Your task to perform on an android device: check out phone information Image 0: 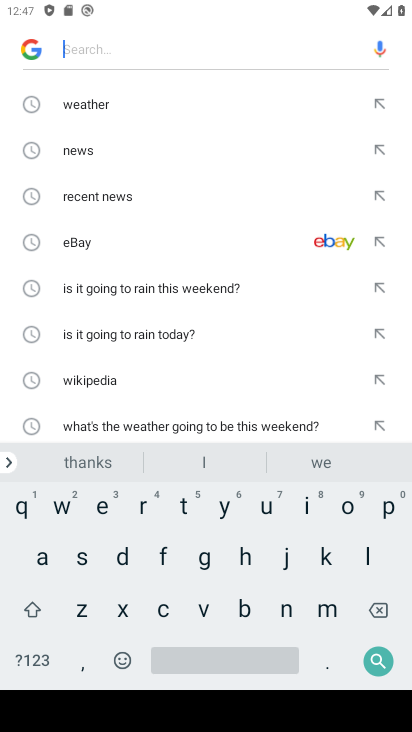
Step 0: press home button
Your task to perform on an android device: check out phone information Image 1: 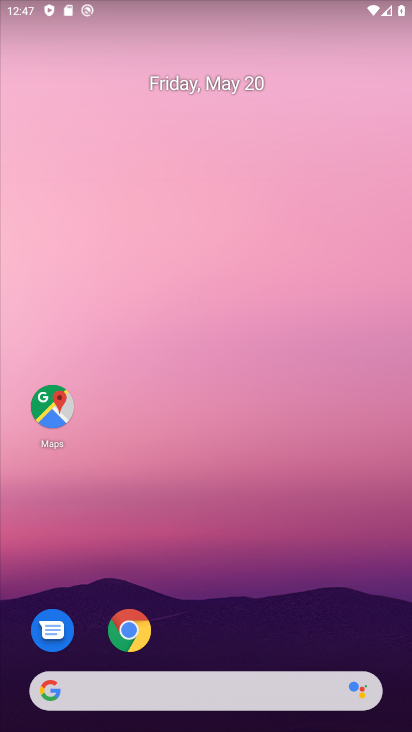
Step 1: drag from (264, 676) to (262, 172)
Your task to perform on an android device: check out phone information Image 2: 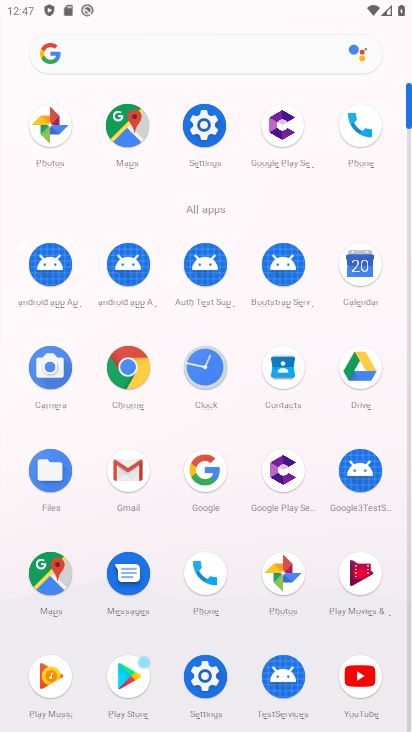
Step 2: click (197, 678)
Your task to perform on an android device: check out phone information Image 3: 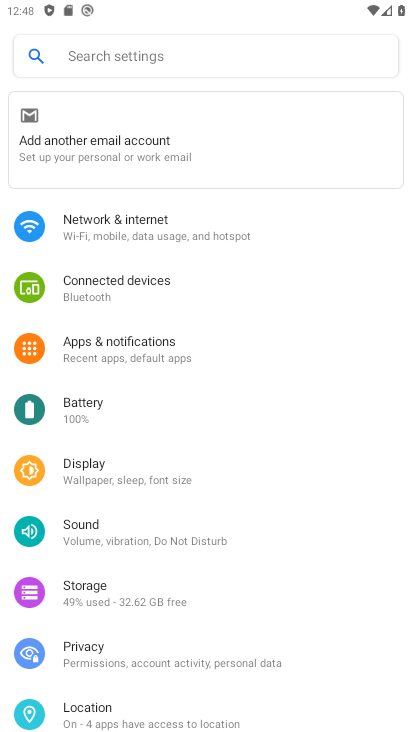
Step 3: click (99, 71)
Your task to perform on an android device: check out phone information Image 4: 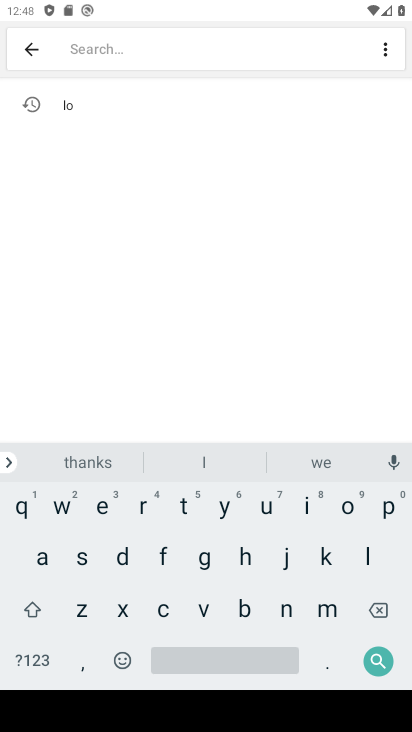
Step 4: click (38, 576)
Your task to perform on an android device: check out phone information Image 5: 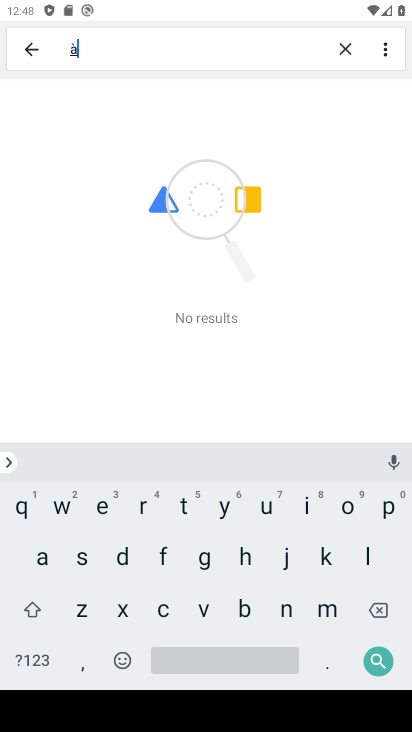
Step 5: click (377, 614)
Your task to perform on an android device: check out phone information Image 6: 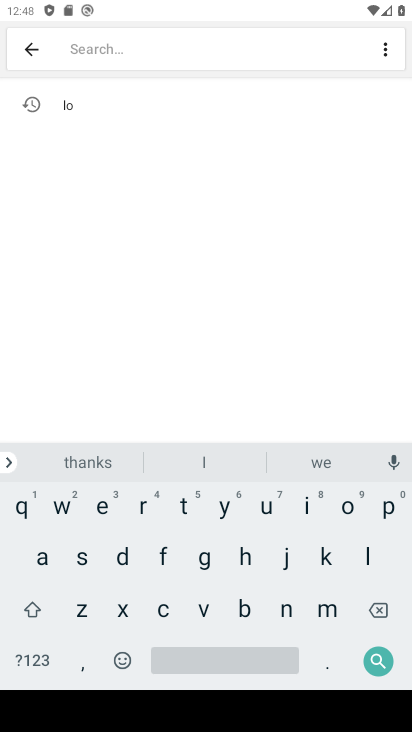
Step 6: click (41, 556)
Your task to perform on an android device: check out phone information Image 7: 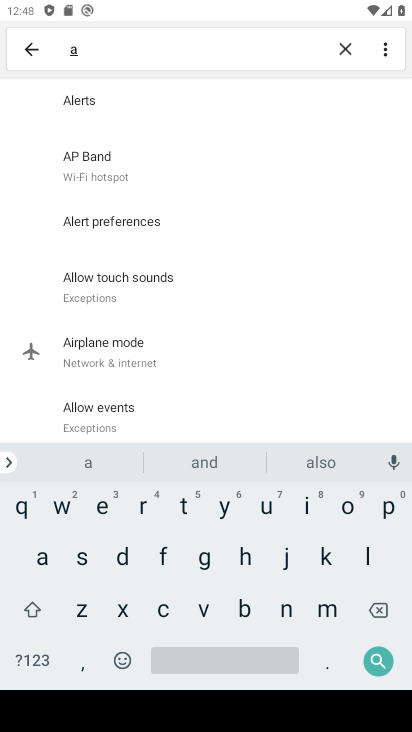
Step 7: click (238, 604)
Your task to perform on an android device: check out phone information Image 8: 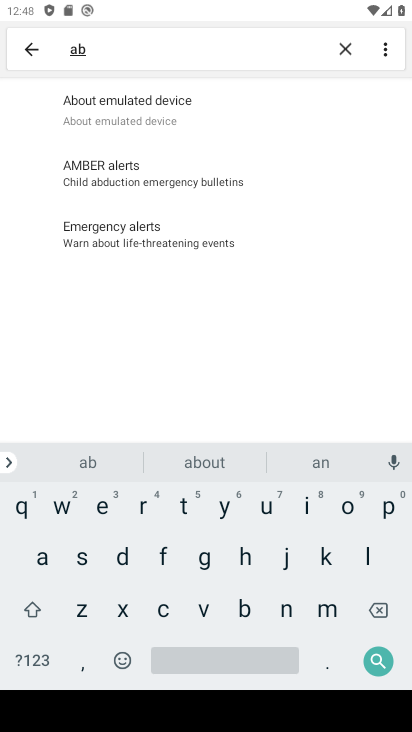
Step 8: click (128, 123)
Your task to perform on an android device: check out phone information Image 9: 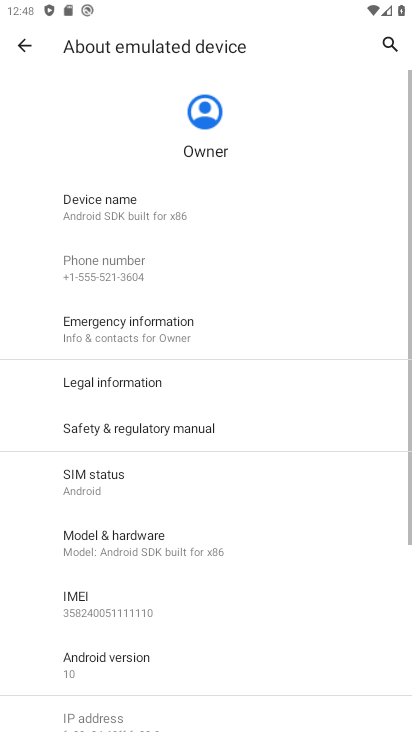
Step 9: task complete